Your task to perform on an android device: move an email to a new category in the gmail app Image 0: 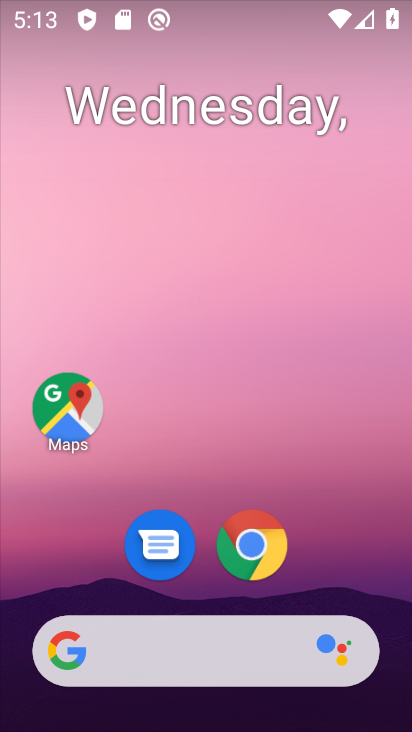
Step 0: drag from (209, 557) to (270, 68)
Your task to perform on an android device: move an email to a new category in the gmail app Image 1: 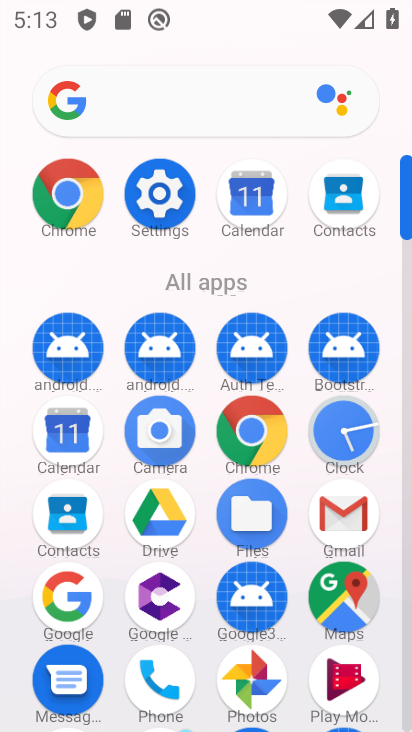
Step 1: click (348, 518)
Your task to perform on an android device: move an email to a new category in the gmail app Image 2: 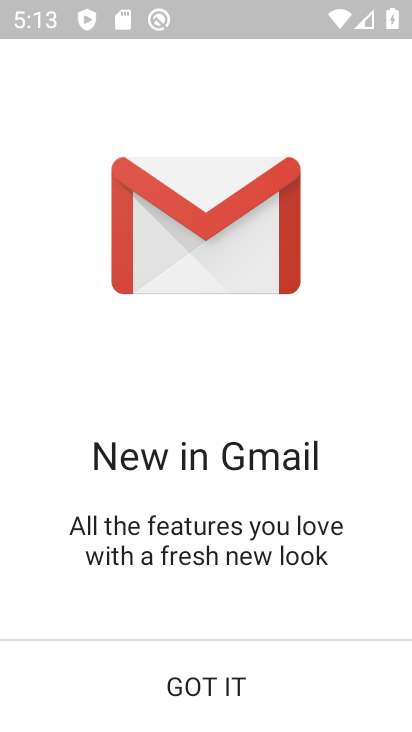
Step 2: click (215, 663)
Your task to perform on an android device: move an email to a new category in the gmail app Image 3: 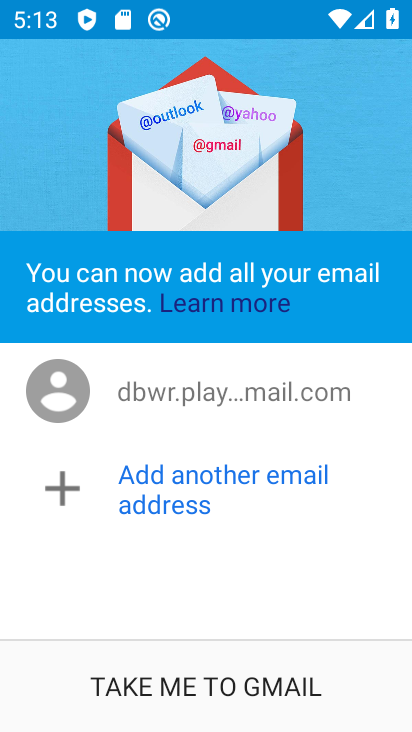
Step 3: click (215, 682)
Your task to perform on an android device: move an email to a new category in the gmail app Image 4: 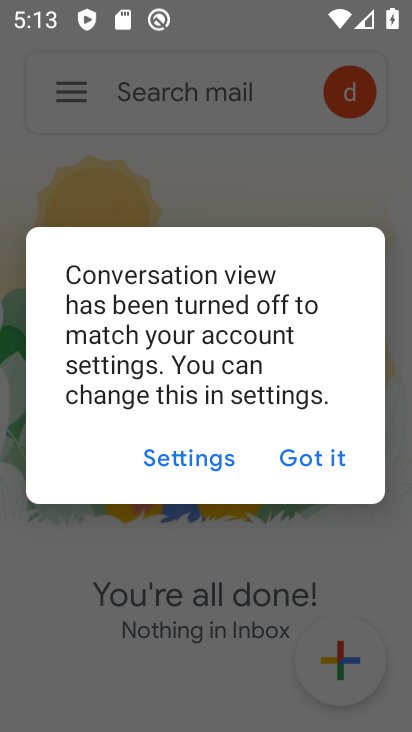
Step 4: click (295, 463)
Your task to perform on an android device: move an email to a new category in the gmail app Image 5: 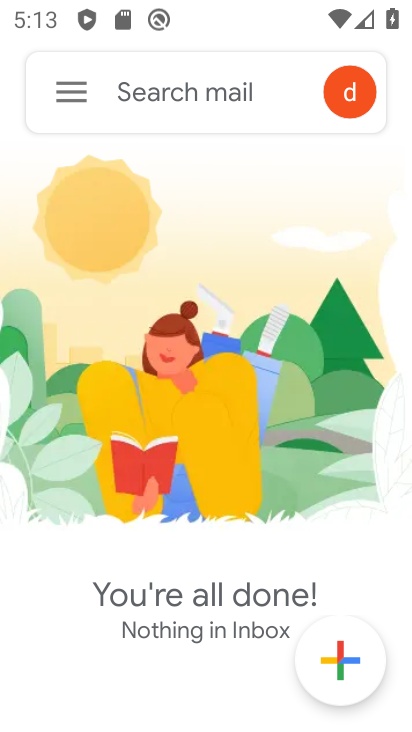
Step 5: click (65, 88)
Your task to perform on an android device: move an email to a new category in the gmail app Image 6: 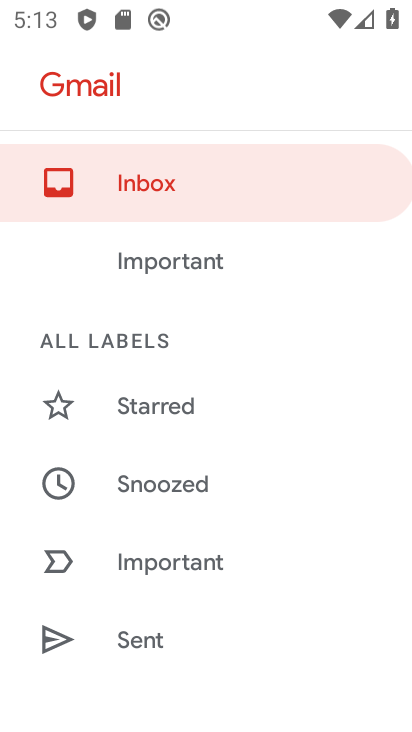
Step 6: drag from (217, 599) to (306, 177)
Your task to perform on an android device: move an email to a new category in the gmail app Image 7: 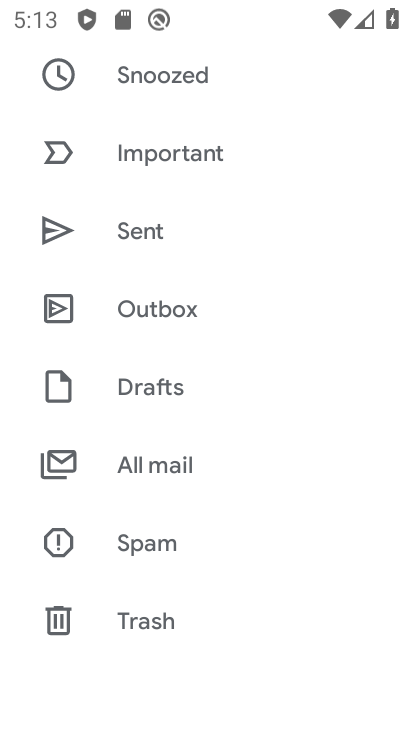
Step 7: click (180, 462)
Your task to perform on an android device: move an email to a new category in the gmail app Image 8: 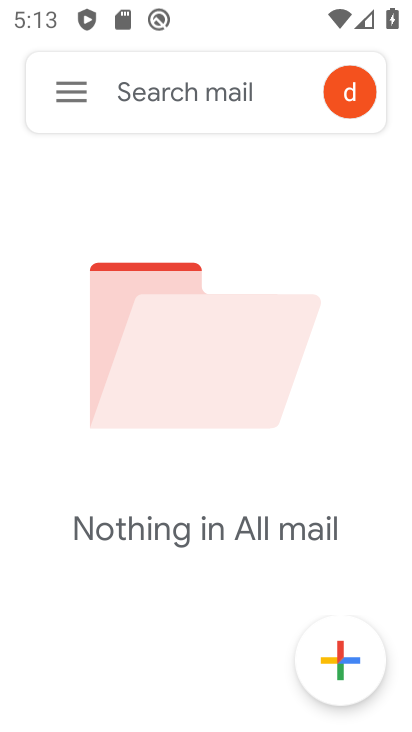
Step 8: task complete